Your task to perform on an android device: Go to accessibility settings Image 0: 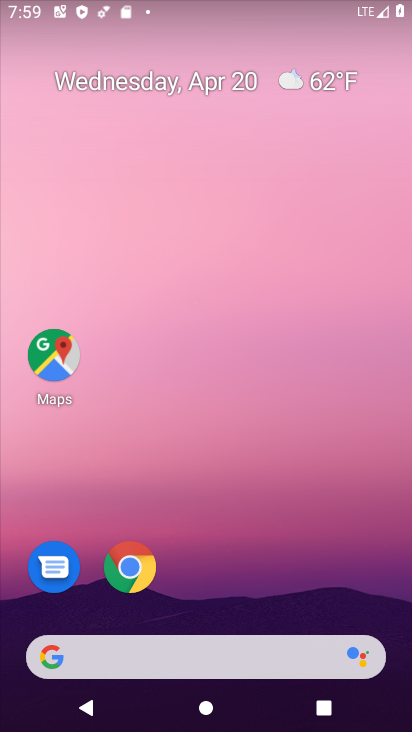
Step 0: drag from (362, 409) to (282, 1)
Your task to perform on an android device: Go to accessibility settings Image 1: 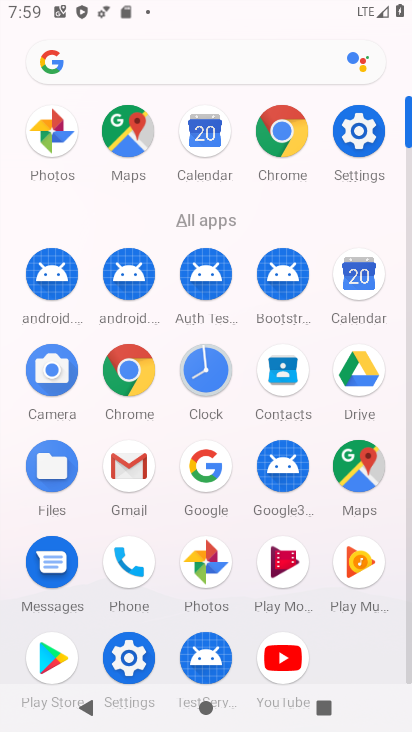
Step 1: click (354, 137)
Your task to perform on an android device: Go to accessibility settings Image 2: 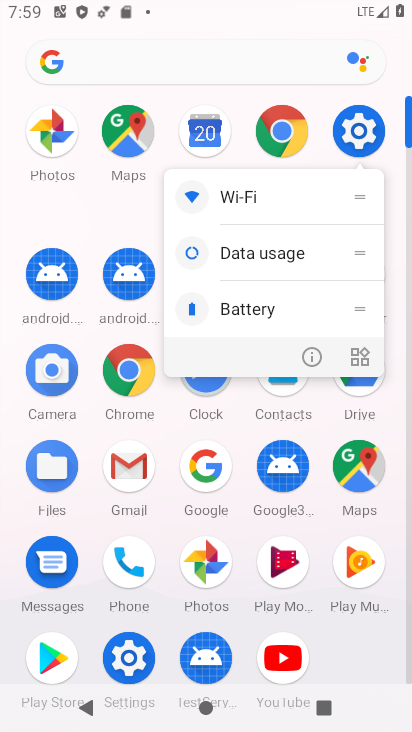
Step 2: click (354, 137)
Your task to perform on an android device: Go to accessibility settings Image 3: 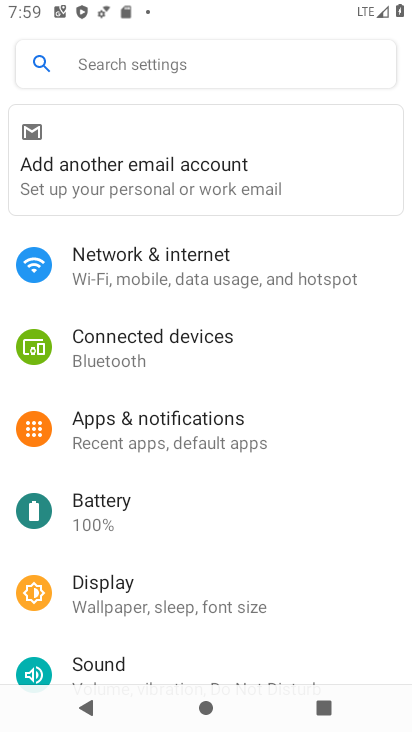
Step 3: drag from (213, 495) to (216, 215)
Your task to perform on an android device: Go to accessibility settings Image 4: 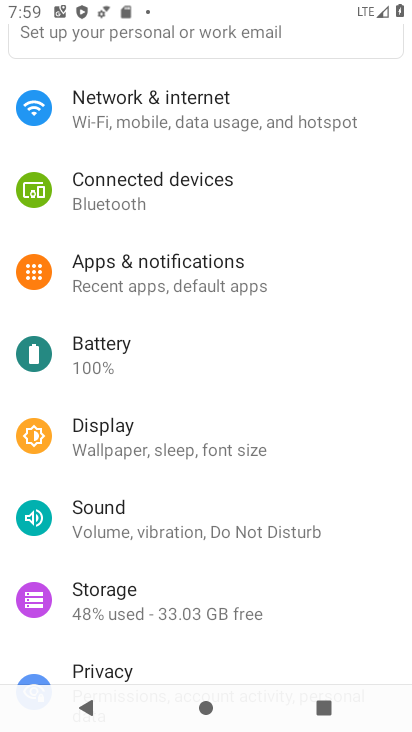
Step 4: drag from (215, 555) to (251, 284)
Your task to perform on an android device: Go to accessibility settings Image 5: 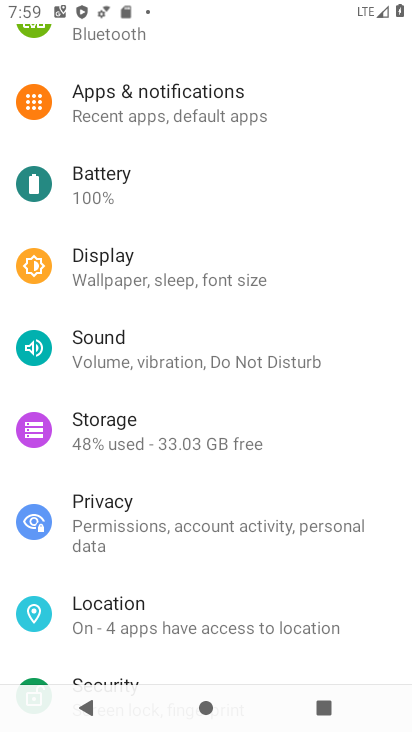
Step 5: drag from (242, 553) to (256, 195)
Your task to perform on an android device: Go to accessibility settings Image 6: 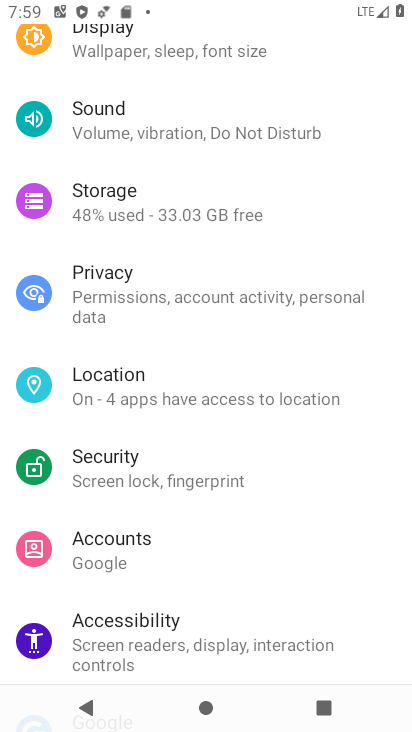
Step 6: drag from (273, 553) to (321, 239)
Your task to perform on an android device: Go to accessibility settings Image 7: 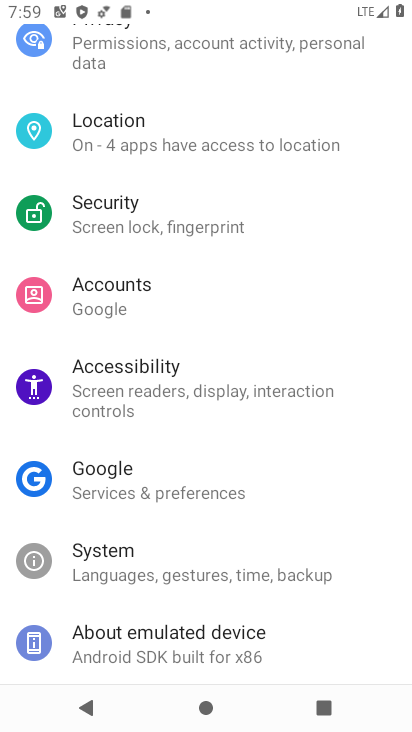
Step 7: click (177, 382)
Your task to perform on an android device: Go to accessibility settings Image 8: 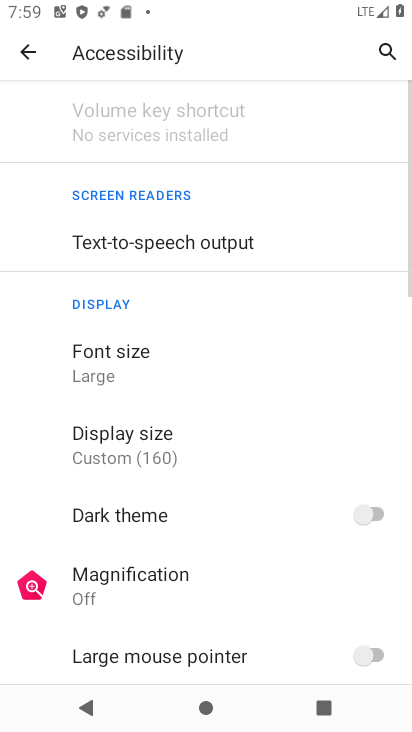
Step 8: task complete